Your task to perform on an android device: Check the news Image 0: 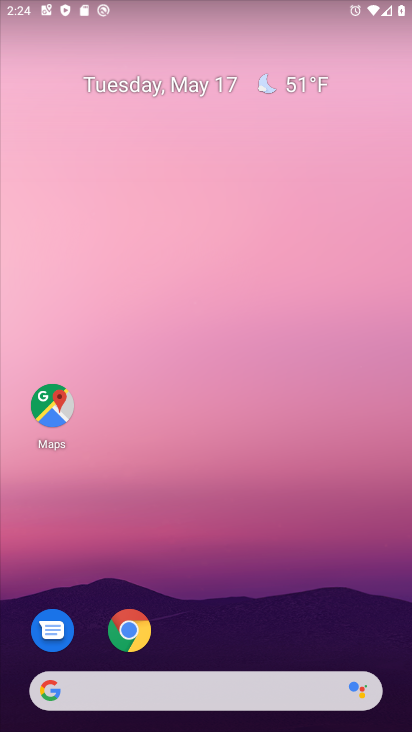
Step 0: click (191, 692)
Your task to perform on an android device: Check the news Image 1: 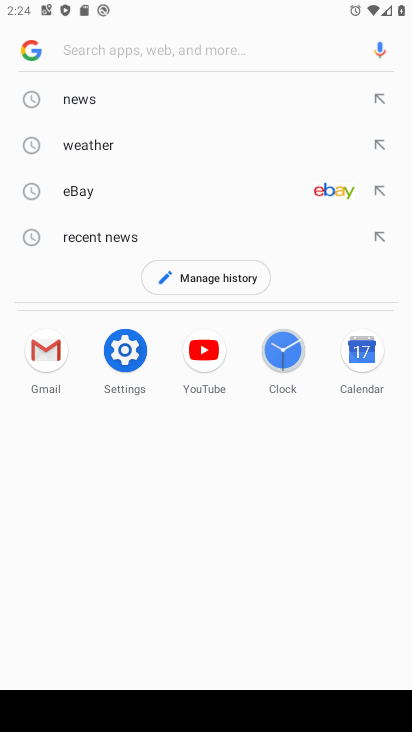
Step 1: click (71, 89)
Your task to perform on an android device: Check the news Image 2: 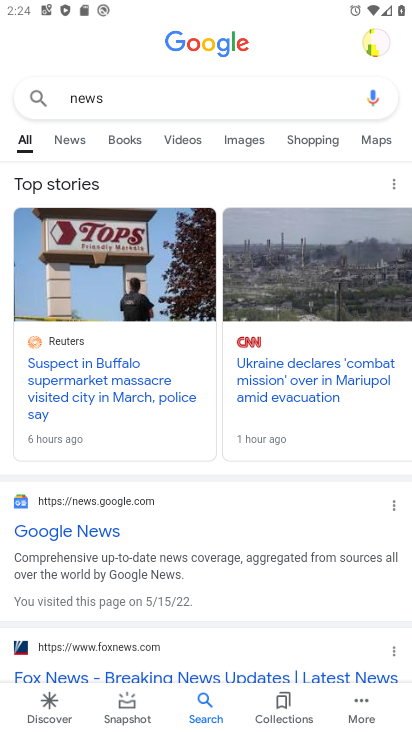
Step 2: task complete